Your task to perform on an android device: What's the weather going to be tomorrow? Image 0: 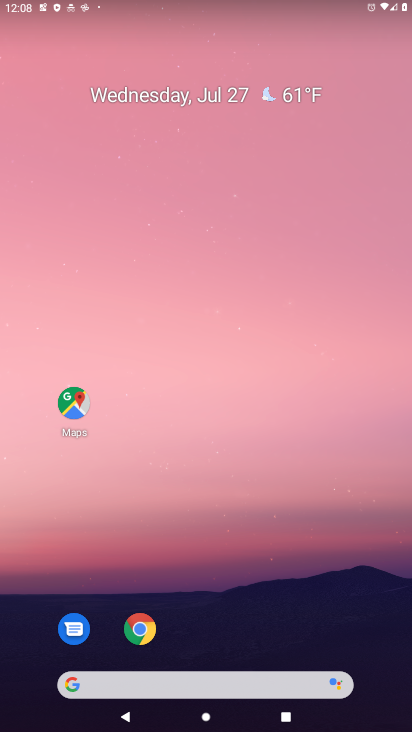
Step 0: click (209, 677)
Your task to perform on an android device: What's the weather going to be tomorrow? Image 1: 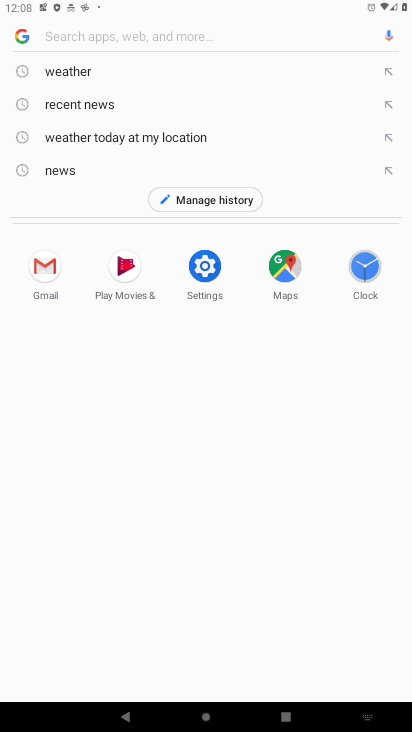
Step 1: click (76, 71)
Your task to perform on an android device: What's the weather going to be tomorrow? Image 2: 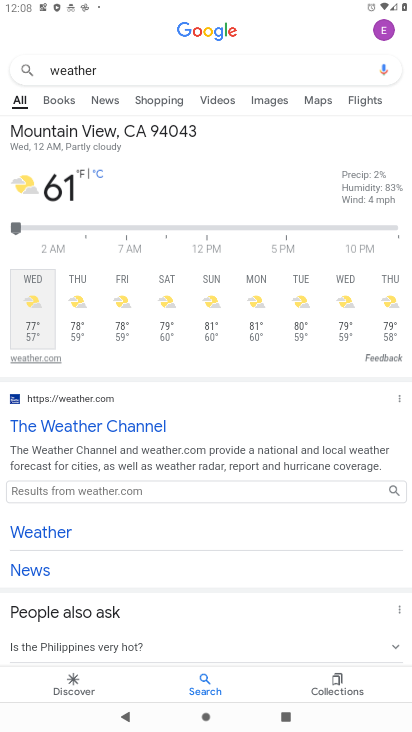
Step 2: task complete